Your task to perform on an android device: check android version Image 0: 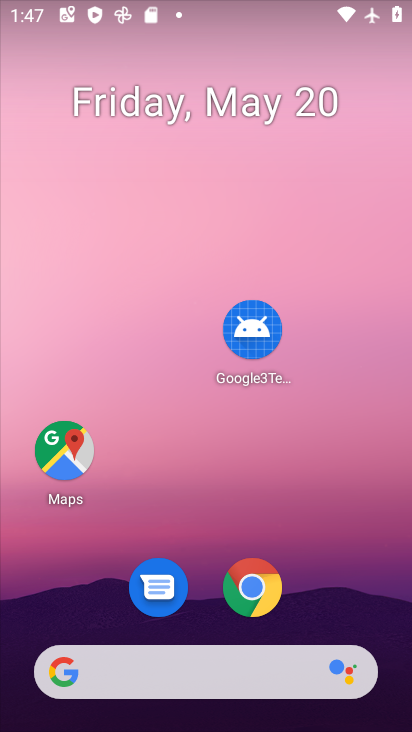
Step 0: drag from (311, 543) to (269, 129)
Your task to perform on an android device: check android version Image 1: 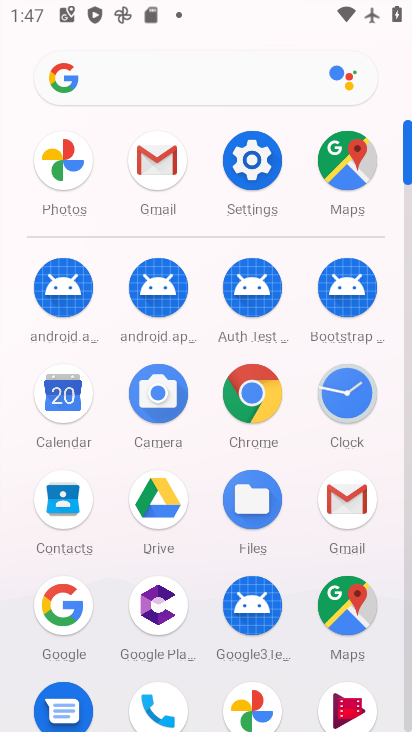
Step 1: click (260, 162)
Your task to perform on an android device: check android version Image 2: 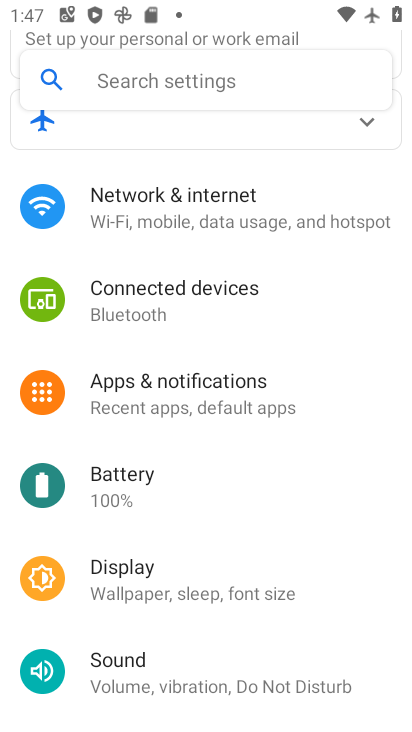
Step 2: drag from (228, 387) to (216, 260)
Your task to perform on an android device: check android version Image 3: 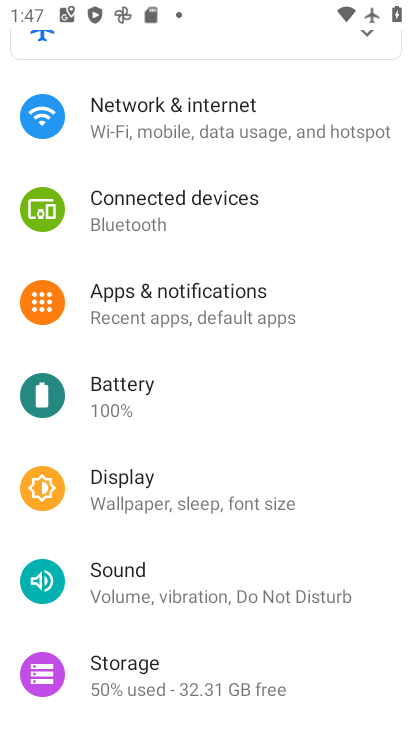
Step 3: drag from (303, 627) to (286, 171)
Your task to perform on an android device: check android version Image 4: 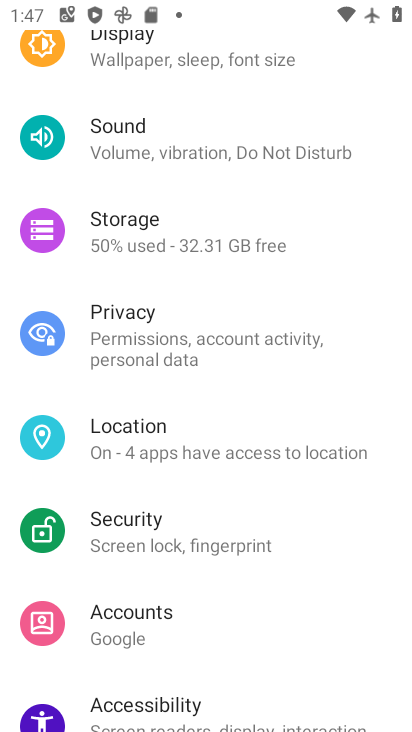
Step 4: click (291, 117)
Your task to perform on an android device: check android version Image 5: 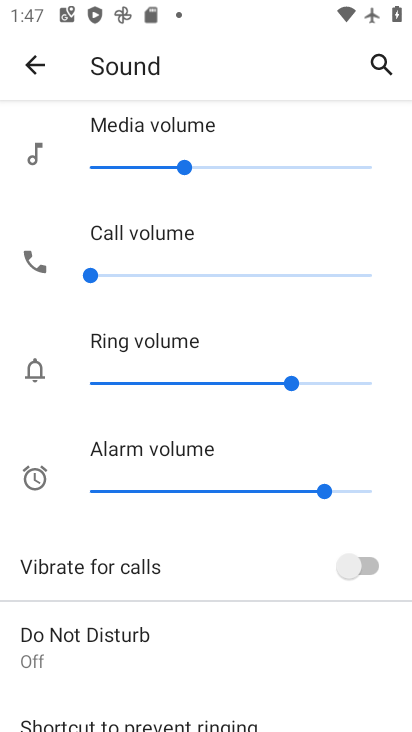
Step 5: click (25, 62)
Your task to perform on an android device: check android version Image 6: 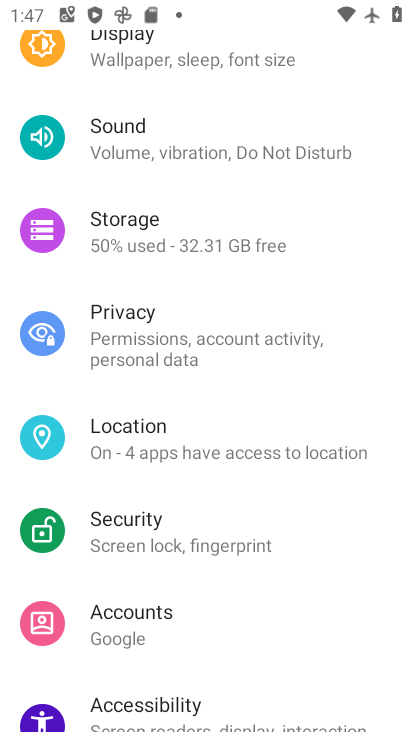
Step 6: drag from (267, 596) to (275, 183)
Your task to perform on an android device: check android version Image 7: 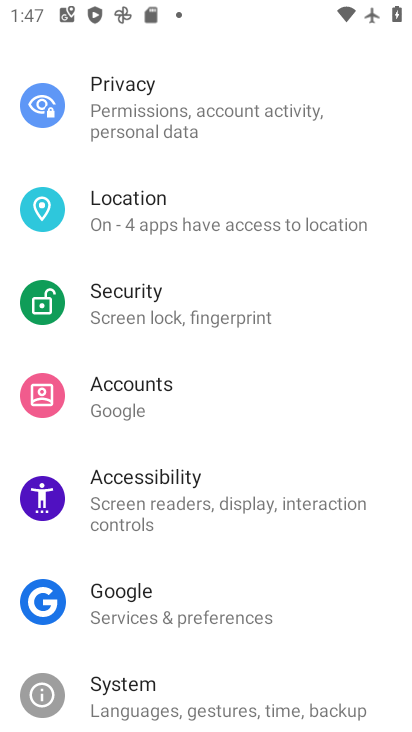
Step 7: drag from (295, 625) to (287, 198)
Your task to perform on an android device: check android version Image 8: 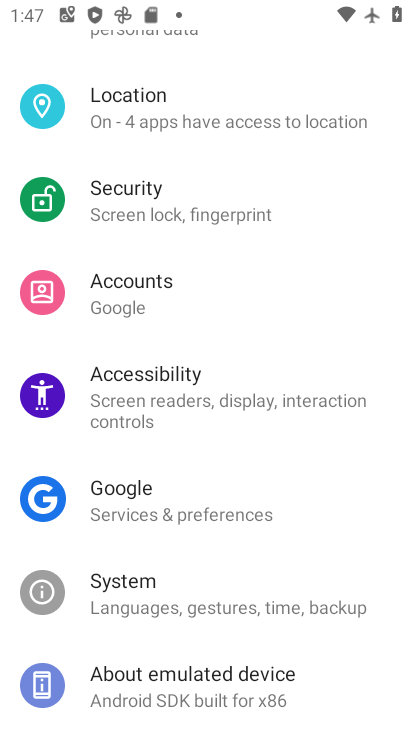
Step 8: click (158, 674)
Your task to perform on an android device: check android version Image 9: 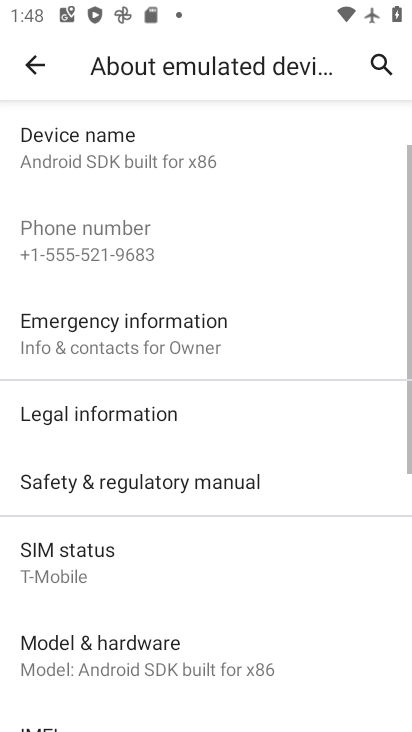
Step 9: drag from (244, 149) to (244, 112)
Your task to perform on an android device: check android version Image 10: 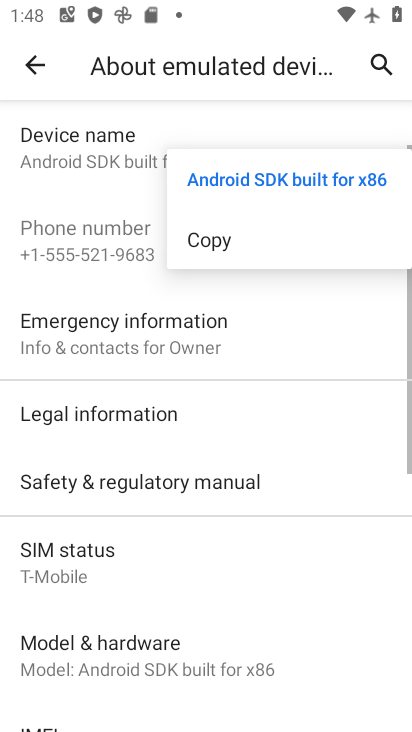
Step 10: click (291, 291)
Your task to perform on an android device: check android version Image 11: 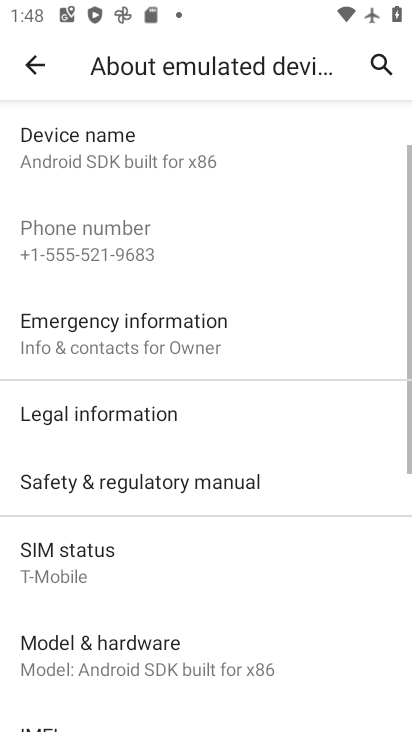
Step 11: task complete